Your task to perform on an android device: search for starred emails in the gmail app Image 0: 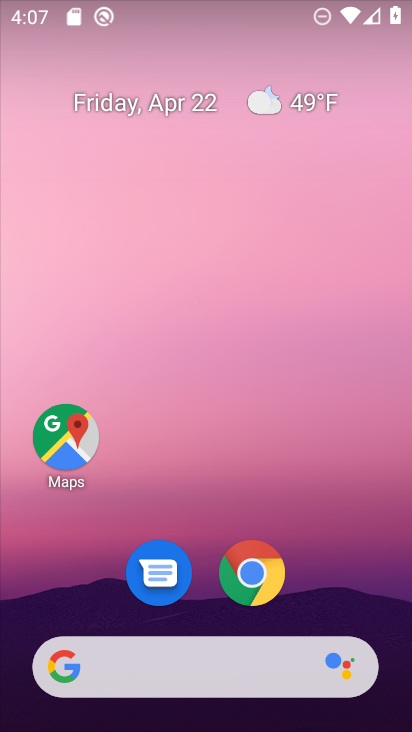
Step 0: drag from (297, 623) to (284, 187)
Your task to perform on an android device: search for starred emails in the gmail app Image 1: 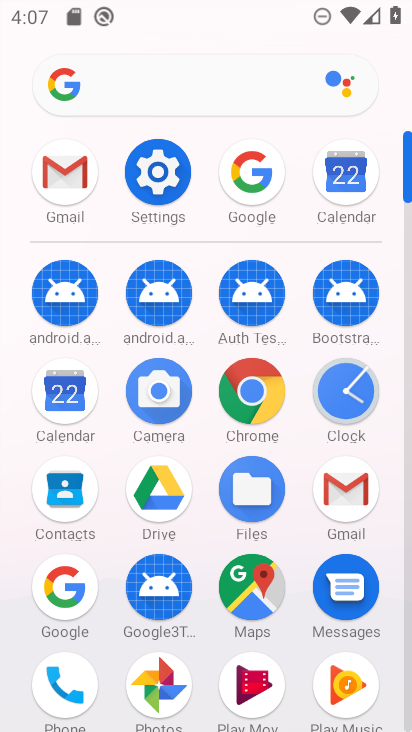
Step 1: click (345, 497)
Your task to perform on an android device: search for starred emails in the gmail app Image 2: 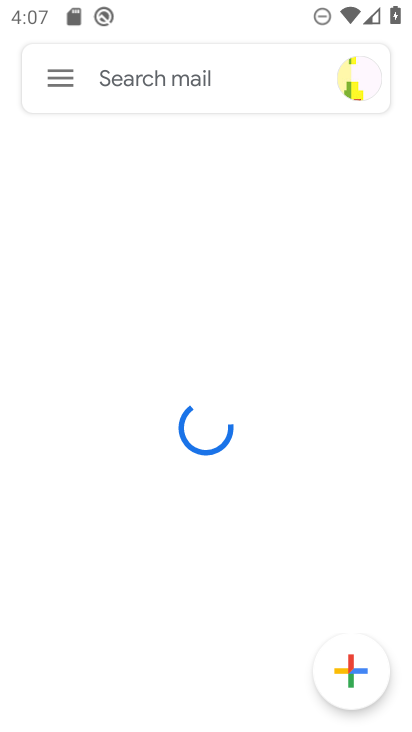
Step 2: click (57, 82)
Your task to perform on an android device: search for starred emails in the gmail app Image 3: 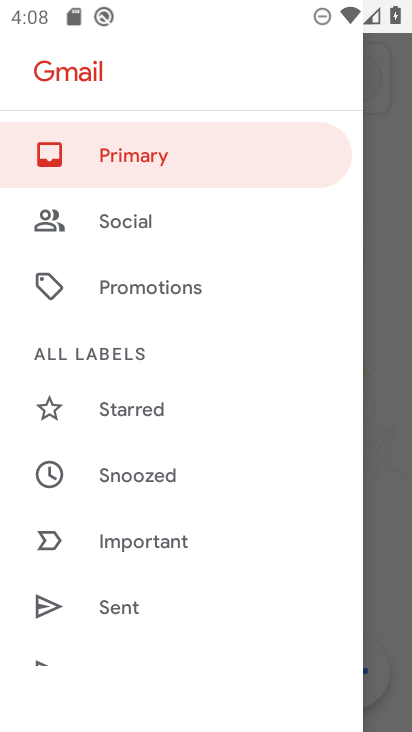
Step 3: click (145, 397)
Your task to perform on an android device: search for starred emails in the gmail app Image 4: 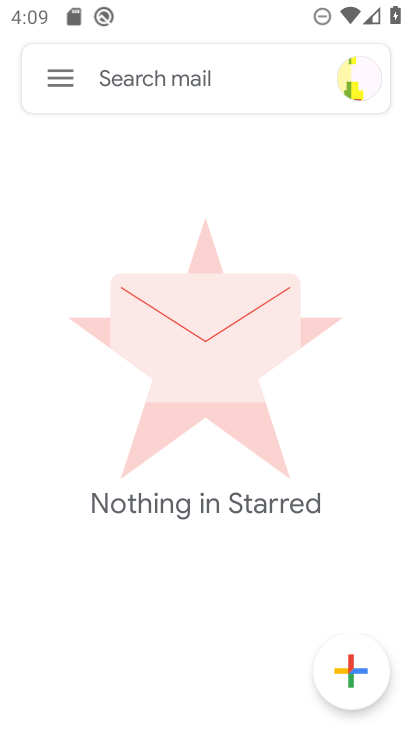
Step 4: task complete